Your task to perform on an android device: turn off javascript in the chrome app Image 0: 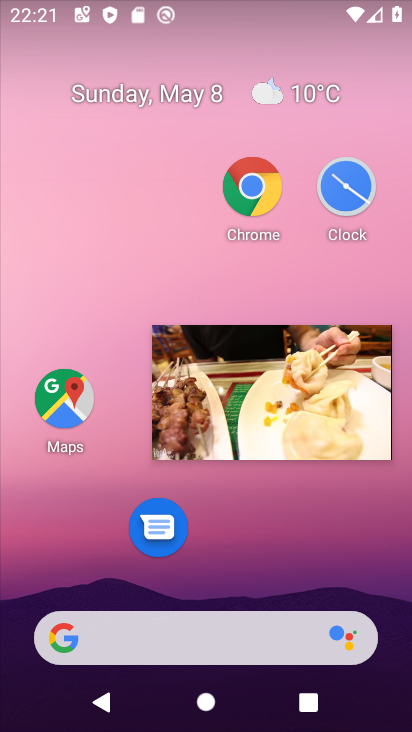
Step 0: press home button
Your task to perform on an android device: turn off javascript in the chrome app Image 1: 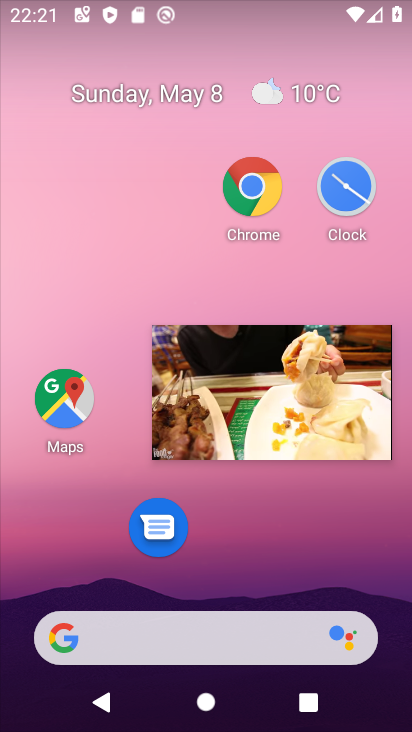
Step 1: click (384, 339)
Your task to perform on an android device: turn off javascript in the chrome app Image 2: 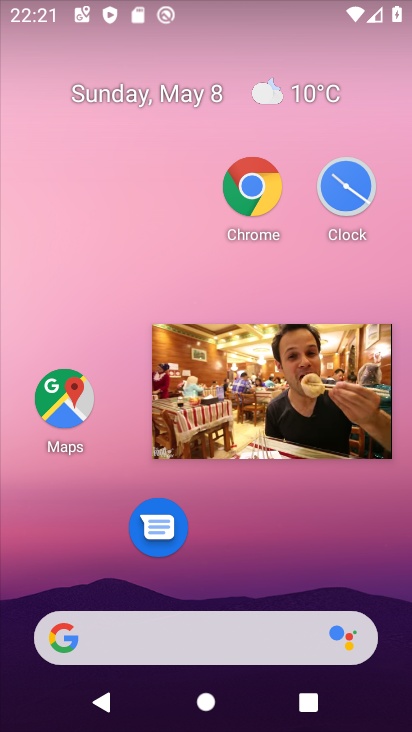
Step 2: click (367, 306)
Your task to perform on an android device: turn off javascript in the chrome app Image 3: 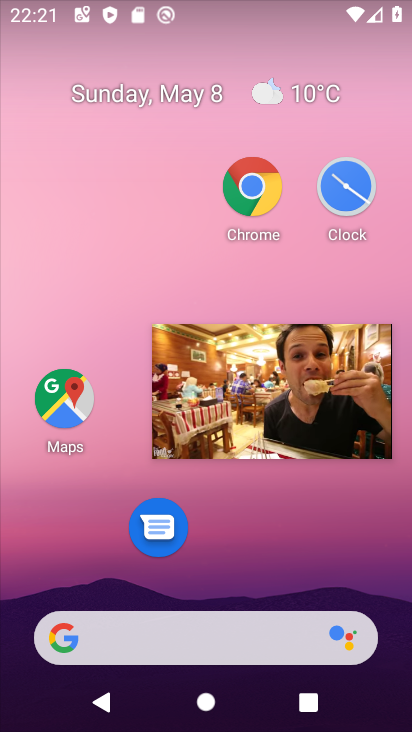
Step 3: click (362, 339)
Your task to perform on an android device: turn off javascript in the chrome app Image 4: 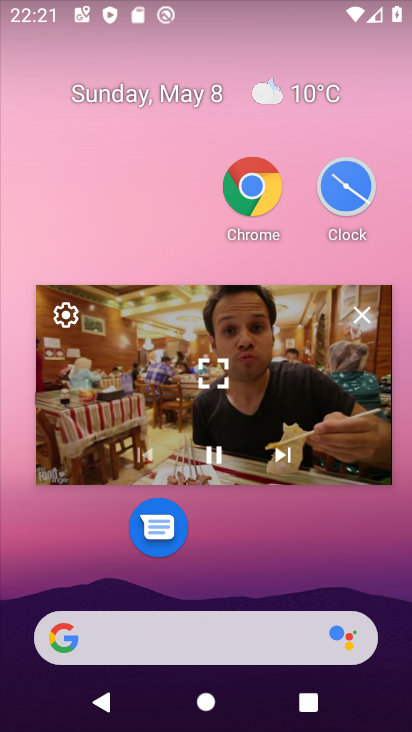
Step 4: click (366, 315)
Your task to perform on an android device: turn off javascript in the chrome app Image 5: 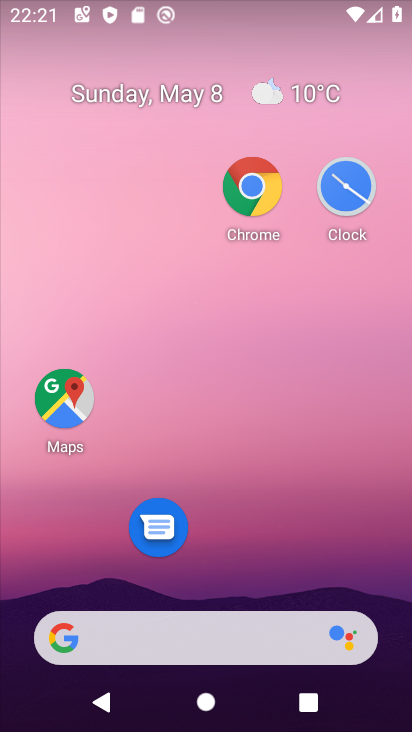
Step 5: click (264, 196)
Your task to perform on an android device: turn off javascript in the chrome app Image 6: 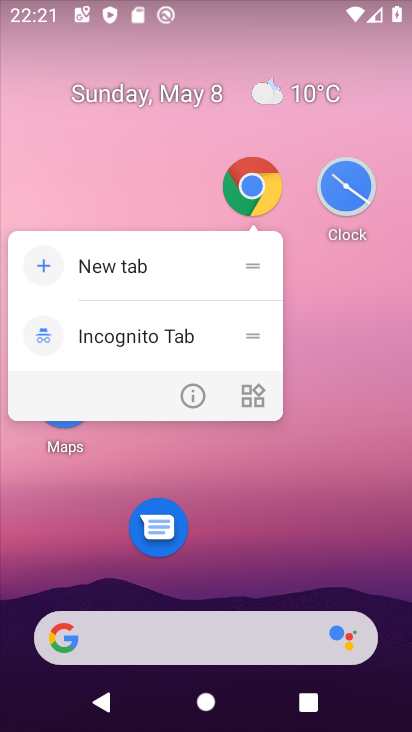
Step 6: click (263, 185)
Your task to perform on an android device: turn off javascript in the chrome app Image 7: 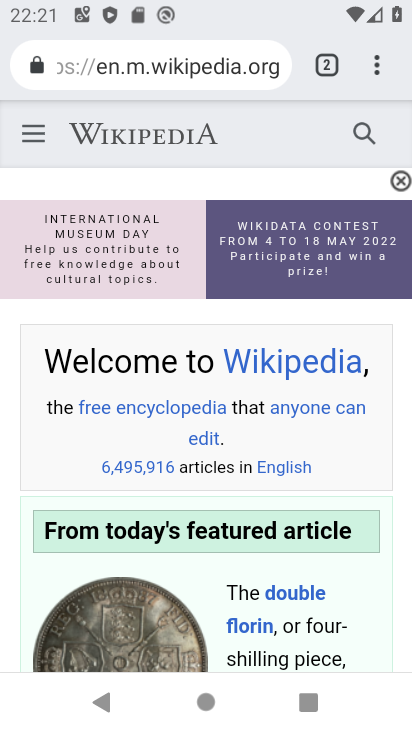
Step 7: click (28, 136)
Your task to perform on an android device: turn off javascript in the chrome app Image 8: 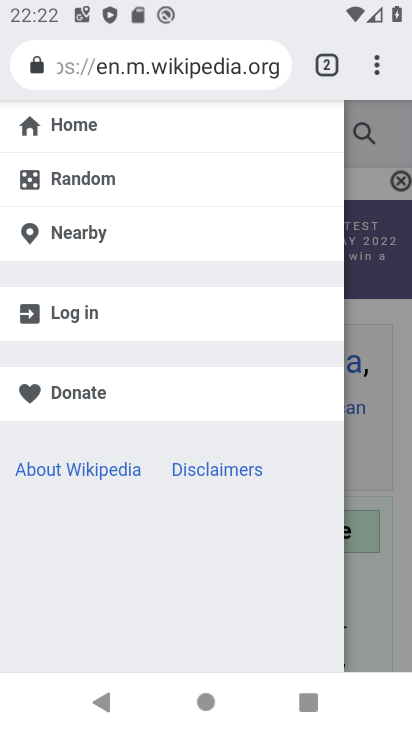
Step 8: click (376, 62)
Your task to perform on an android device: turn off javascript in the chrome app Image 9: 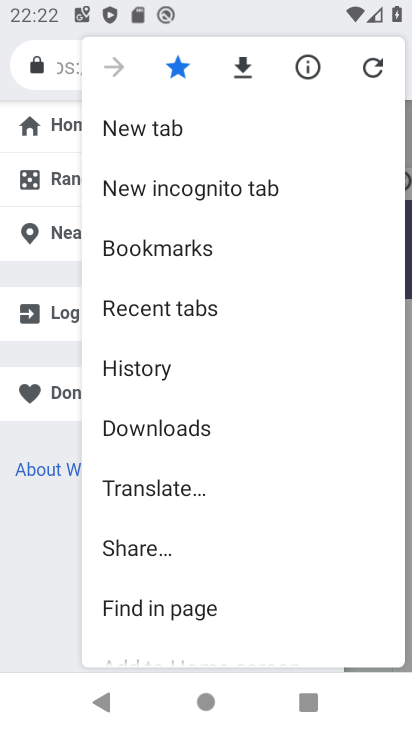
Step 9: drag from (234, 488) to (224, 81)
Your task to perform on an android device: turn off javascript in the chrome app Image 10: 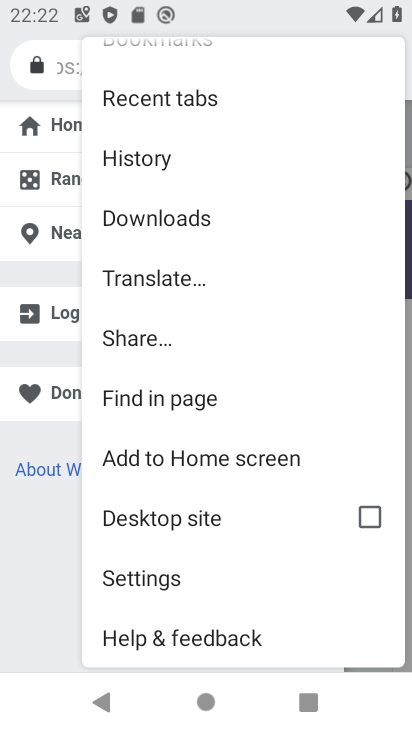
Step 10: drag from (217, 576) to (203, 297)
Your task to perform on an android device: turn off javascript in the chrome app Image 11: 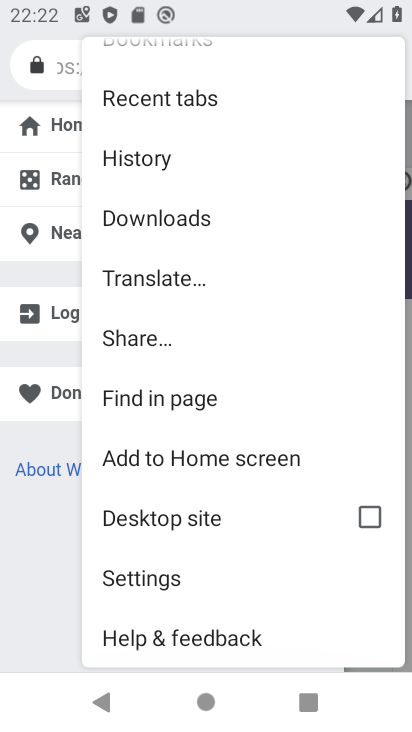
Step 11: drag from (248, 58) to (244, 632)
Your task to perform on an android device: turn off javascript in the chrome app Image 12: 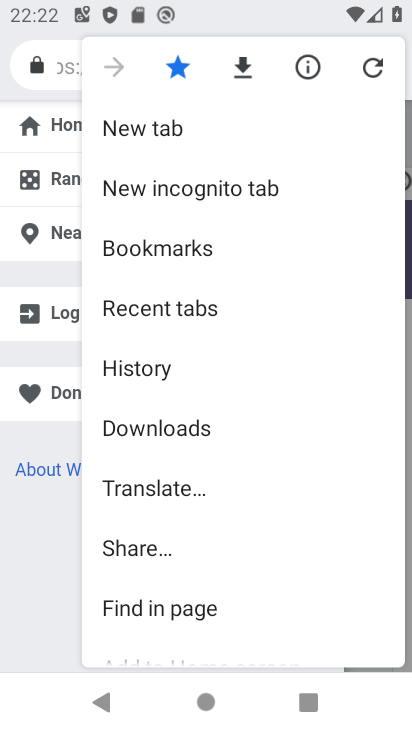
Step 12: drag from (210, 548) to (265, 102)
Your task to perform on an android device: turn off javascript in the chrome app Image 13: 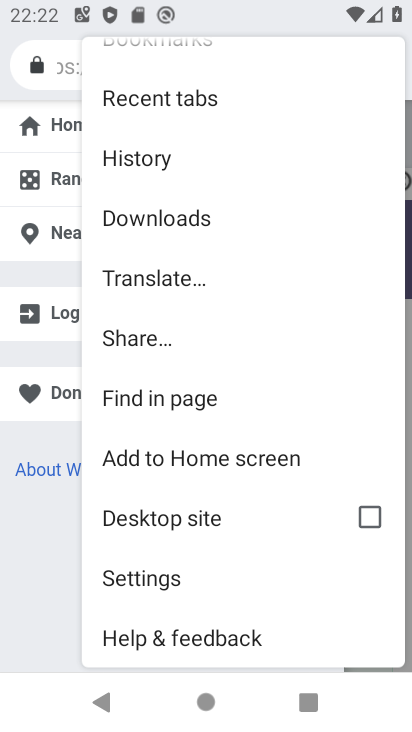
Step 13: click (205, 574)
Your task to perform on an android device: turn off javascript in the chrome app Image 14: 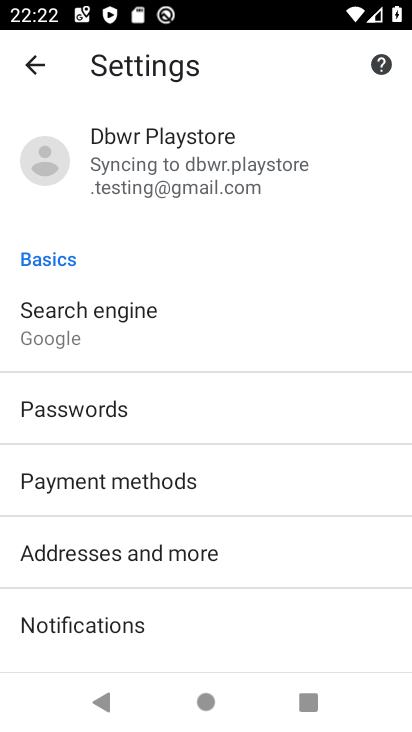
Step 14: drag from (193, 569) to (266, 215)
Your task to perform on an android device: turn off javascript in the chrome app Image 15: 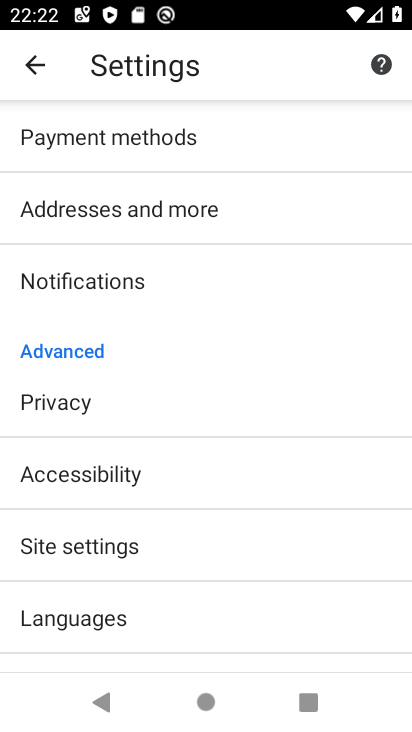
Step 15: drag from (245, 504) to (300, 210)
Your task to perform on an android device: turn off javascript in the chrome app Image 16: 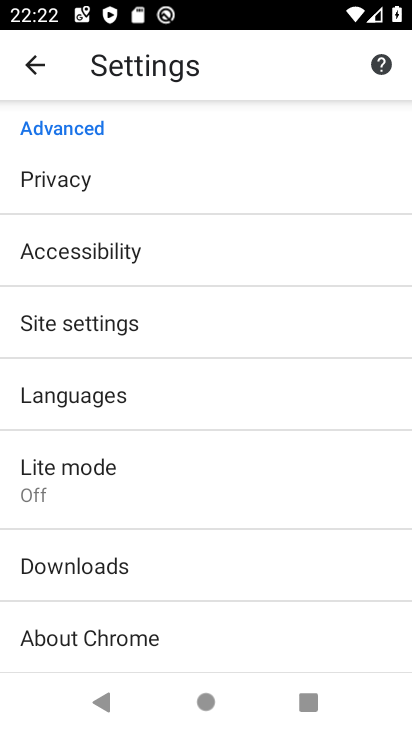
Step 16: drag from (164, 607) to (284, 236)
Your task to perform on an android device: turn off javascript in the chrome app Image 17: 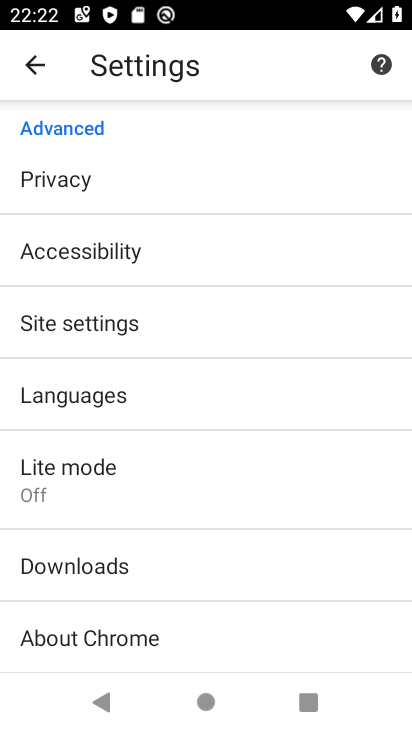
Step 17: drag from (262, 228) to (202, 563)
Your task to perform on an android device: turn off javascript in the chrome app Image 18: 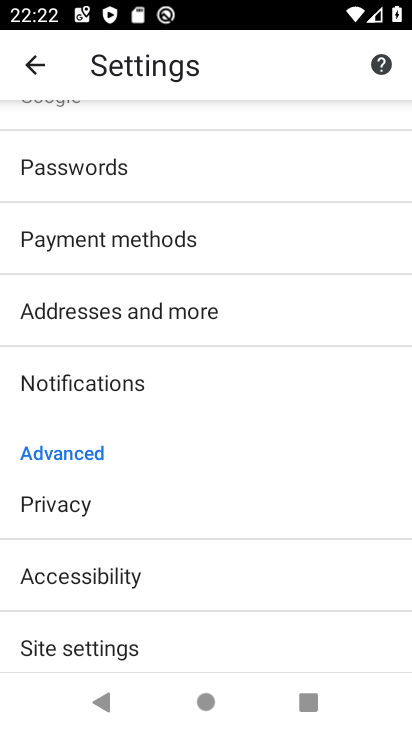
Step 18: drag from (171, 250) to (143, 556)
Your task to perform on an android device: turn off javascript in the chrome app Image 19: 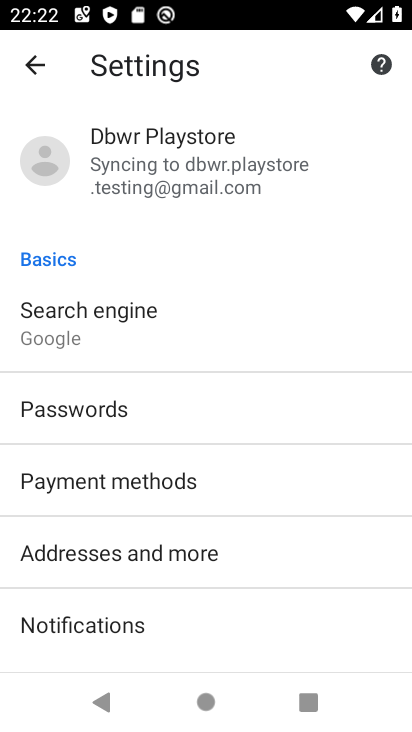
Step 19: drag from (221, 551) to (296, 170)
Your task to perform on an android device: turn off javascript in the chrome app Image 20: 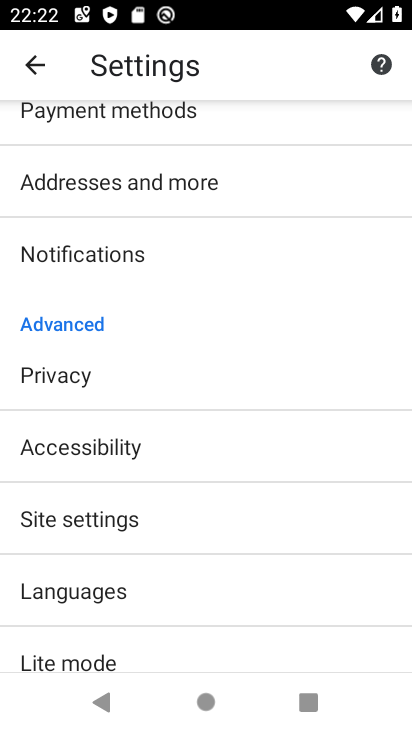
Step 20: click (155, 512)
Your task to perform on an android device: turn off javascript in the chrome app Image 21: 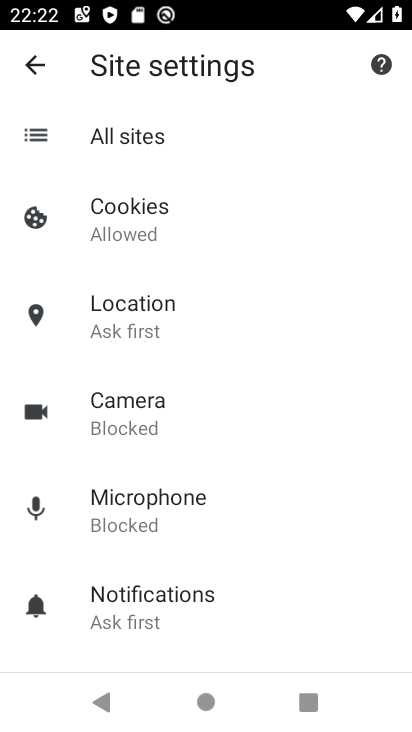
Step 21: drag from (155, 567) to (293, 133)
Your task to perform on an android device: turn off javascript in the chrome app Image 22: 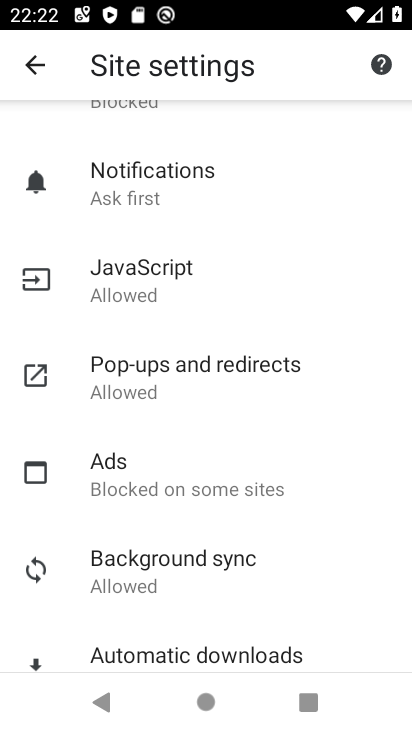
Step 22: drag from (159, 547) to (256, 243)
Your task to perform on an android device: turn off javascript in the chrome app Image 23: 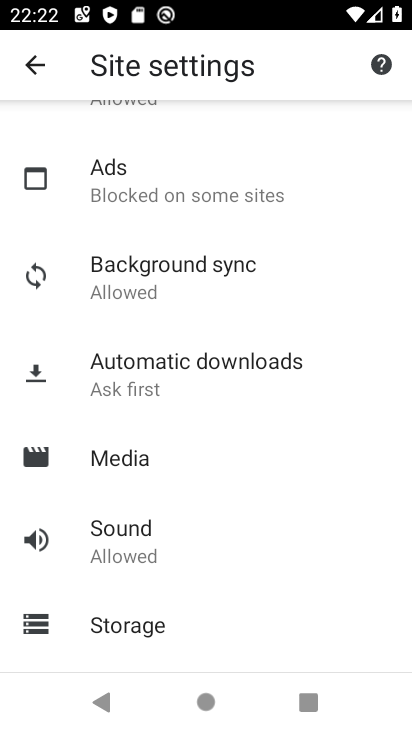
Step 23: drag from (266, 160) to (242, 484)
Your task to perform on an android device: turn off javascript in the chrome app Image 24: 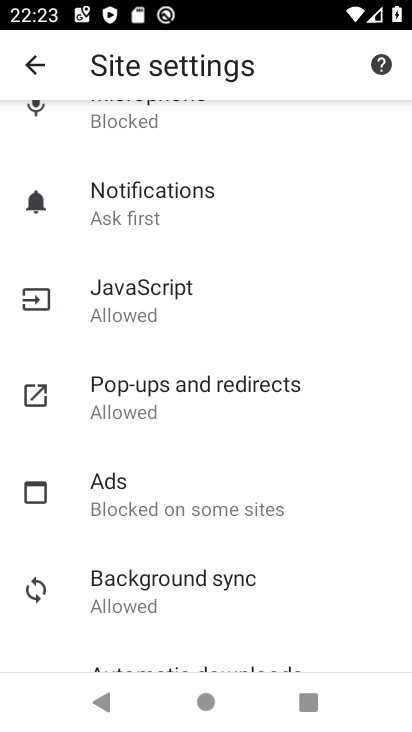
Step 24: click (264, 283)
Your task to perform on an android device: turn off javascript in the chrome app Image 25: 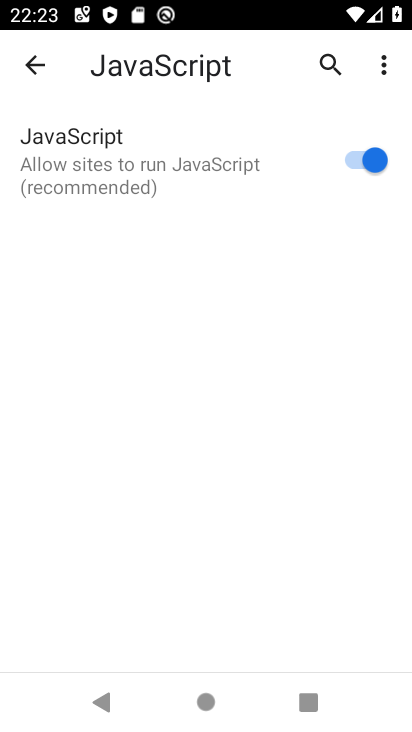
Step 25: click (358, 157)
Your task to perform on an android device: turn off javascript in the chrome app Image 26: 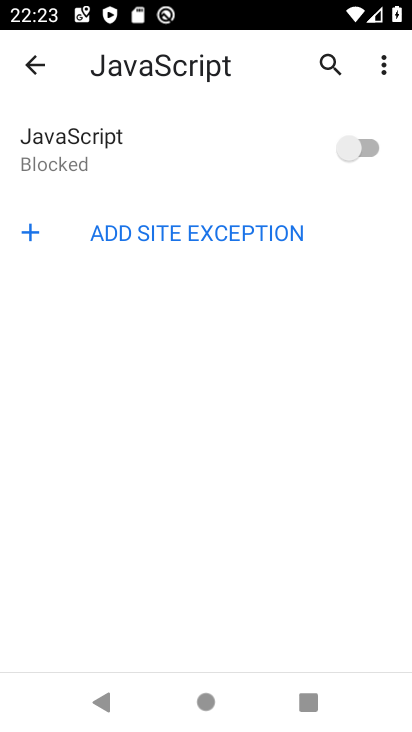
Step 26: task complete